Your task to perform on an android device: Search for the best fantasy books on Goodreads. Image 0: 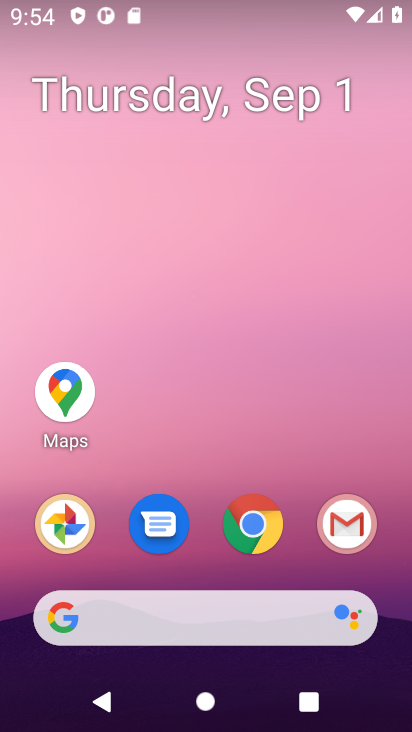
Step 0: drag from (393, 601) to (392, 84)
Your task to perform on an android device: Search for the best fantasy books on Goodreads. Image 1: 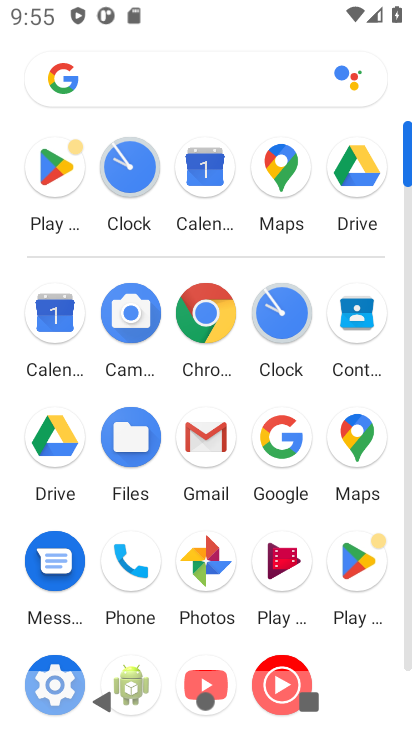
Step 1: click (211, 304)
Your task to perform on an android device: Search for the best fantasy books on Goodreads. Image 2: 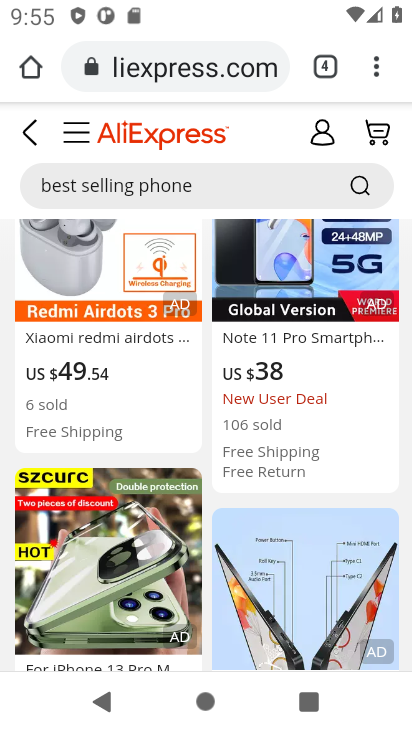
Step 2: click (216, 65)
Your task to perform on an android device: Search for the best fantasy books on Goodreads. Image 3: 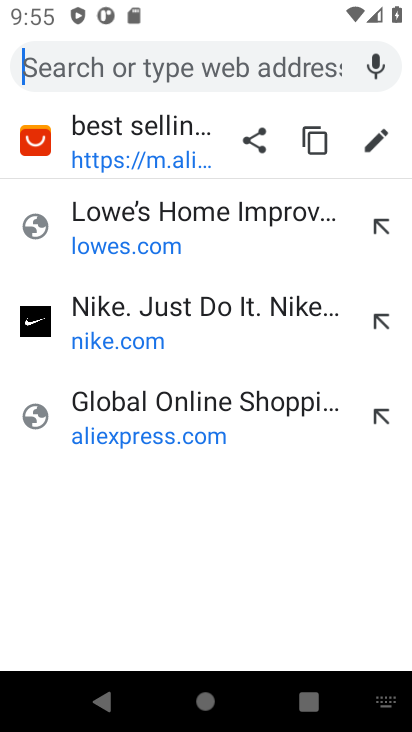
Step 3: press enter
Your task to perform on an android device: Search for the best fantasy books on Goodreads. Image 4: 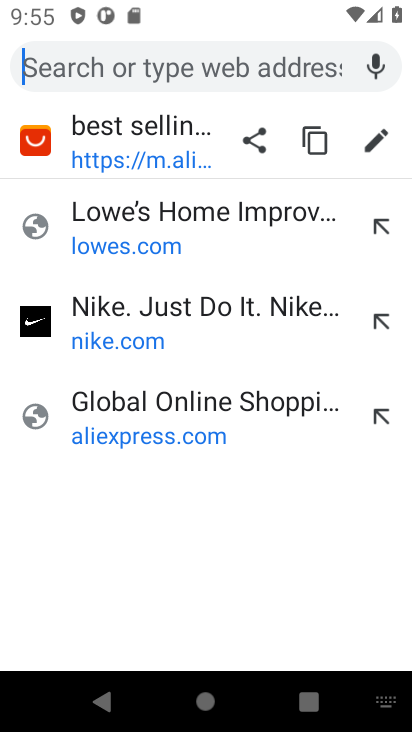
Step 4: type "goodreads"
Your task to perform on an android device: Search for the best fantasy books on Goodreads. Image 5: 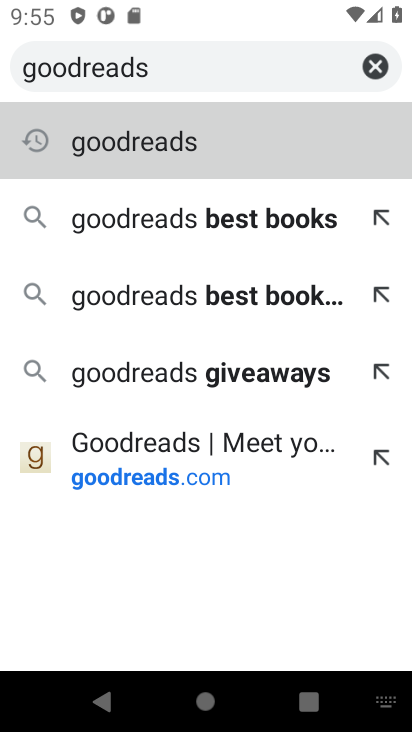
Step 5: click (172, 134)
Your task to perform on an android device: Search for the best fantasy books on Goodreads. Image 6: 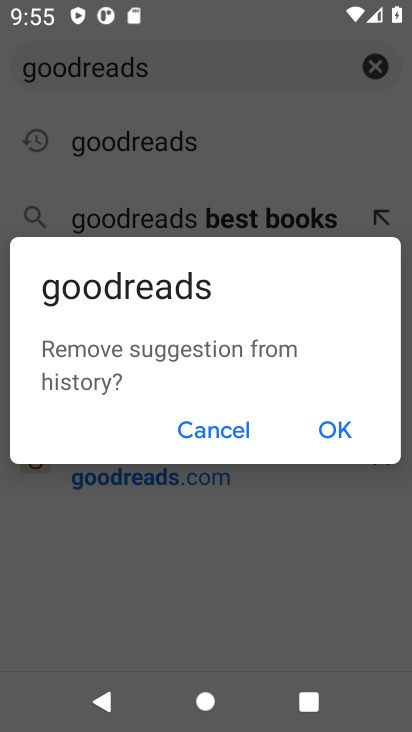
Step 6: click (219, 433)
Your task to perform on an android device: Search for the best fantasy books on Goodreads. Image 7: 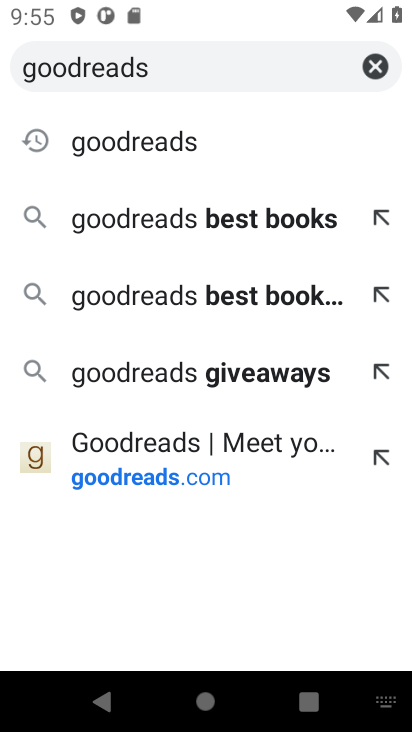
Step 7: click (148, 145)
Your task to perform on an android device: Search for the best fantasy books on Goodreads. Image 8: 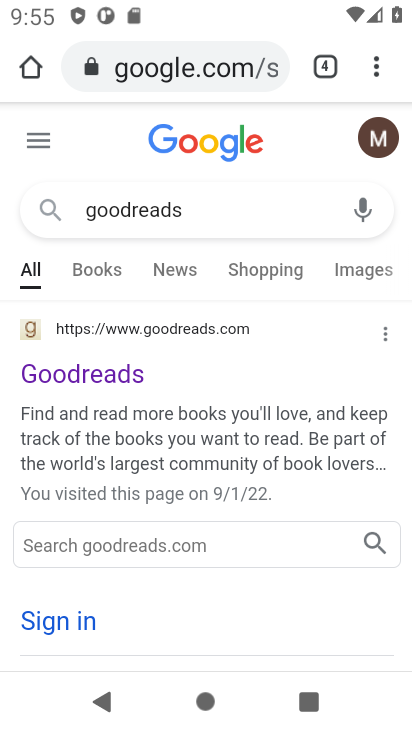
Step 8: click (117, 379)
Your task to perform on an android device: Search for the best fantasy books on Goodreads. Image 9: 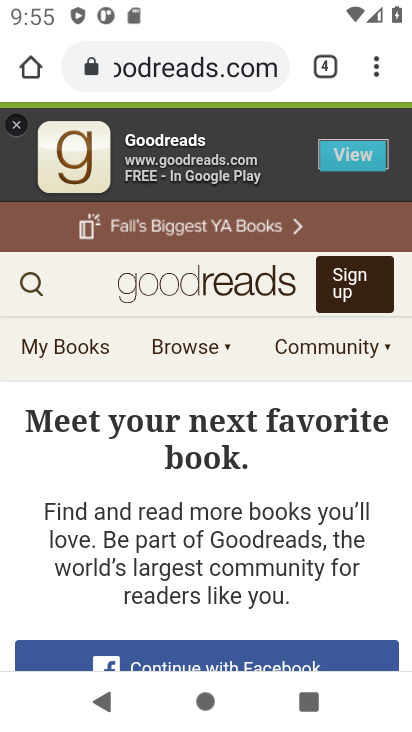
Step 9: click (45, 281)
Your task to perform on an android device: Search for the best fantasy books on Goodreads. Image 10: 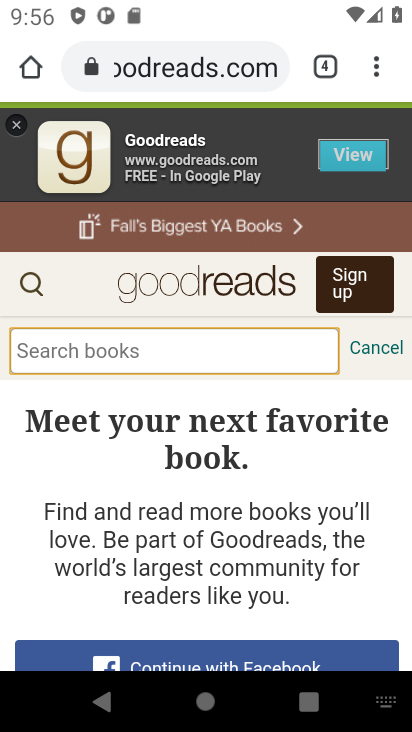
Step 10: press enter
Your task to perform on an android device: Search for the best fantasy books on Goodreads. Image 11: 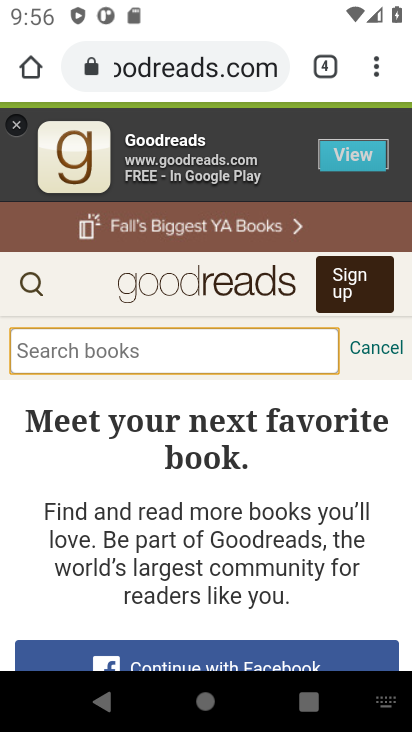
Step 11: type "best fantasy books"
Your task to perform on an android device: Search for the best fantasy books on Goodreads. Image 12: 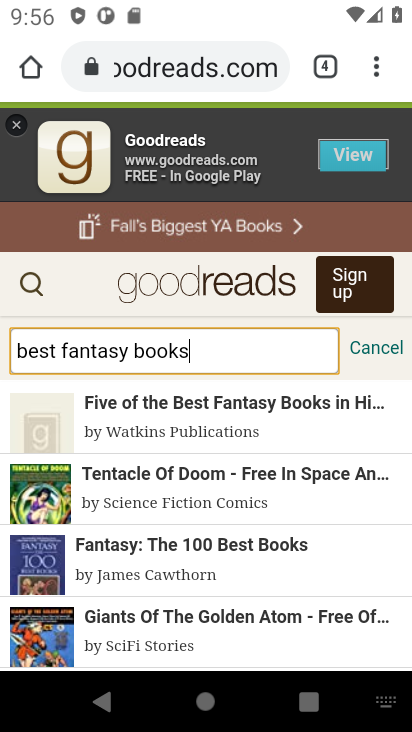
Step 12: task complete